Your task to perform on an android device: toggle pop-ups in chrome Image 0: 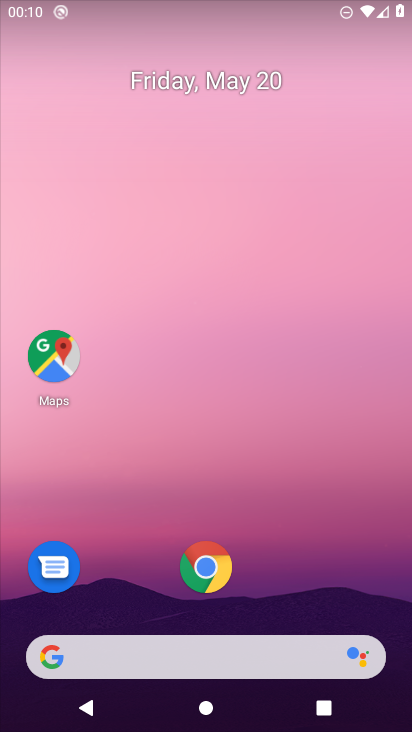
Step 0: click (204, 560)
Your task to perform on an android device: toggle pop-ups in chrome Image 1: 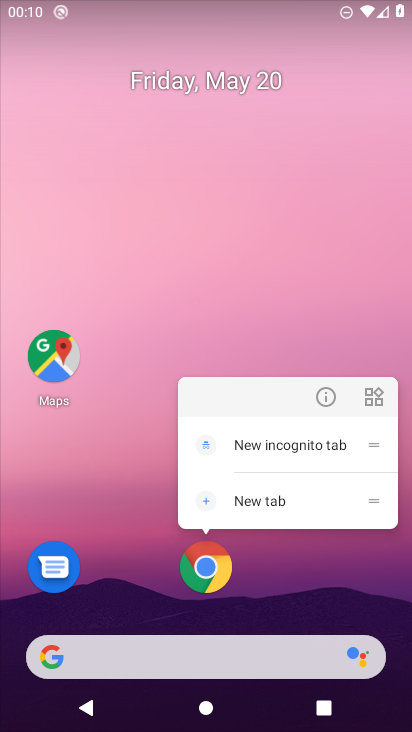
Step 1: click (205, 562)
Your task to perform on an android device: toggle pop-ups in chrome Image 2: 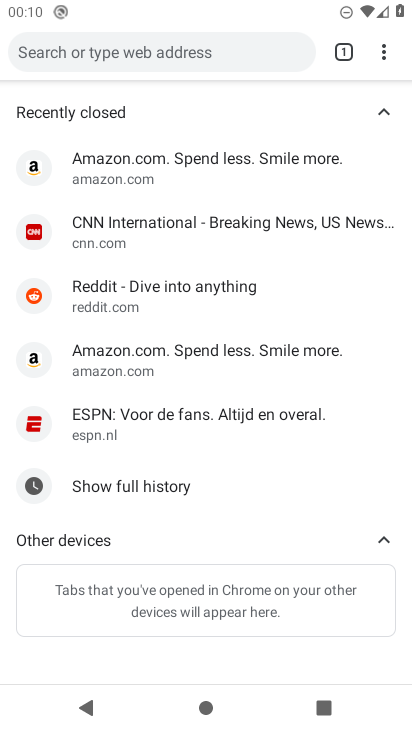
Step 2: click (381, 45)
Your task to perform on an android device: toggle pop-ups in chrome Image 3: 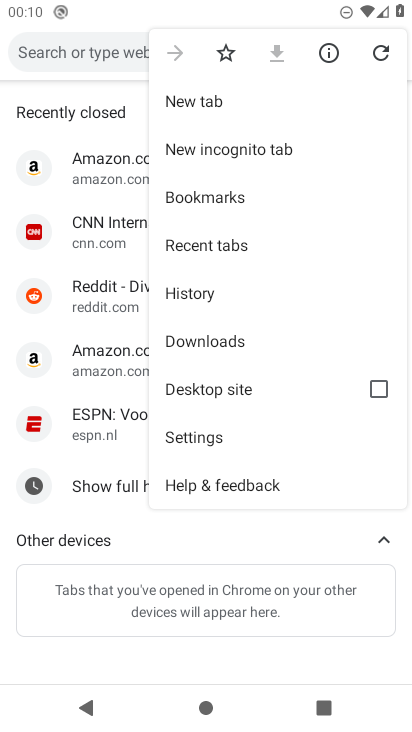
Step 3: click (223, 429)
Your task to perform on an android device: toggle pop-ups in chrome Image 4: 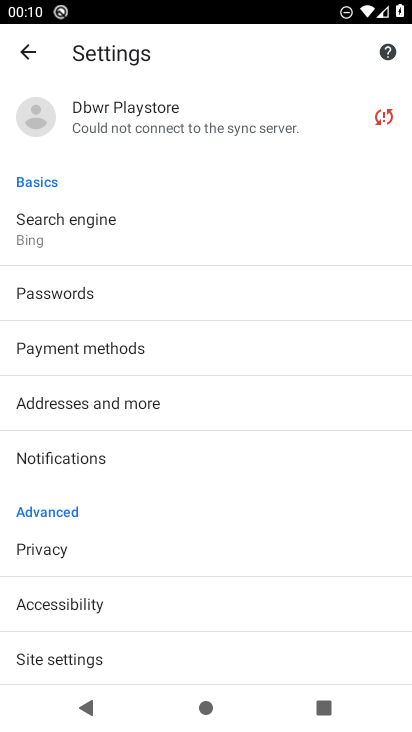
Step 4: drag from (187, 631) to (234, 105)
Your task to perform on an android device: toggle pop-ups in chrome Image 5: 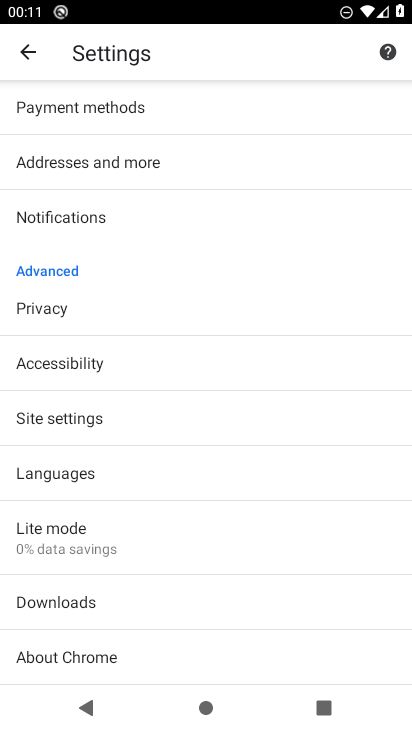
Step 5: click (125, 408)
Your task to perform on an android device: toggle pop-ups in chrome Image 6: 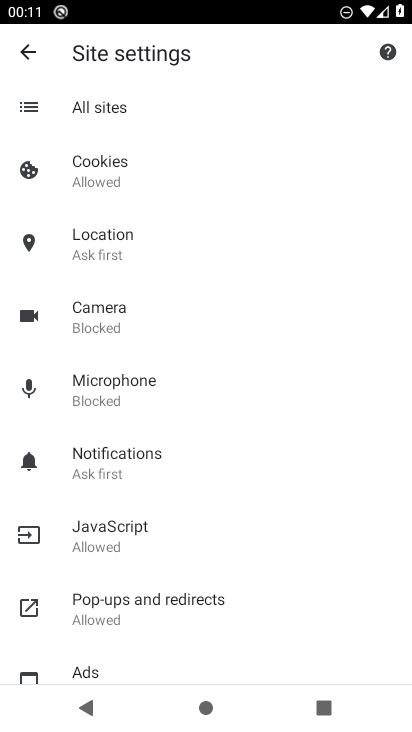
Step 6: click (159, 614)
Your task to perform on an android device: toggle pop-ups in chrome Image 7: 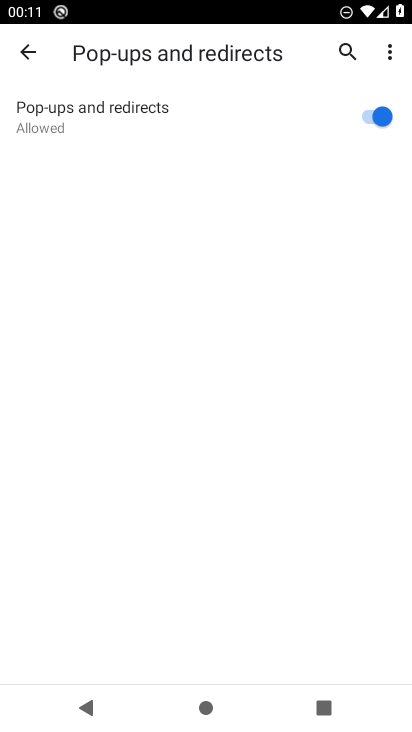
Step 7: click (368, 115)
Your task to perform on an android device: toggle pop-ups in chrome Image 8: 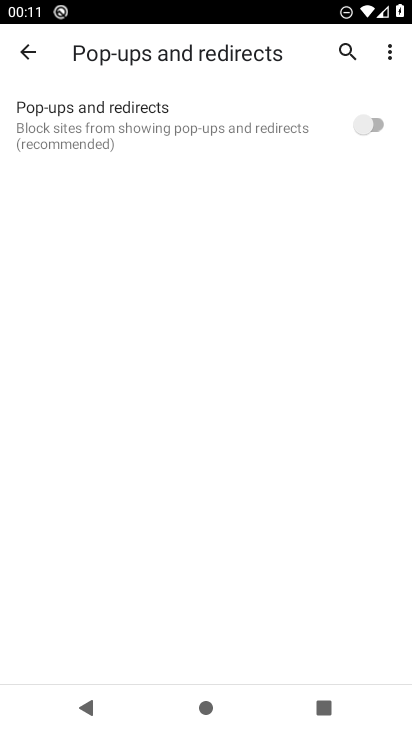
Step 8: task complete